Your task to perform on an android device: change the clock display to digital Image 0: 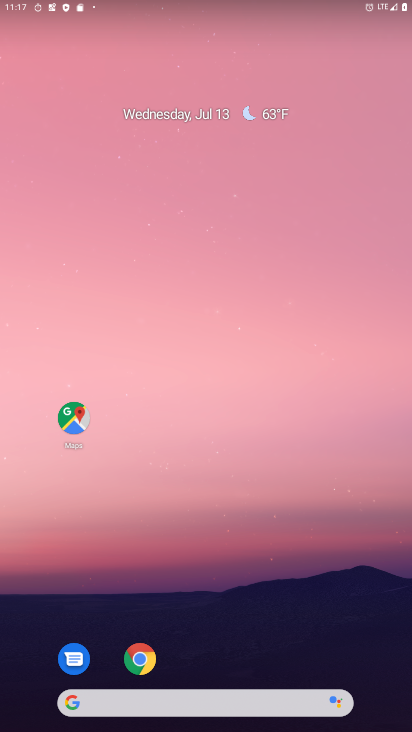
Step 0: drag from (238, 652) to (200, 175)
Your task to perform on an android device: change the clock display to digital Image 1: 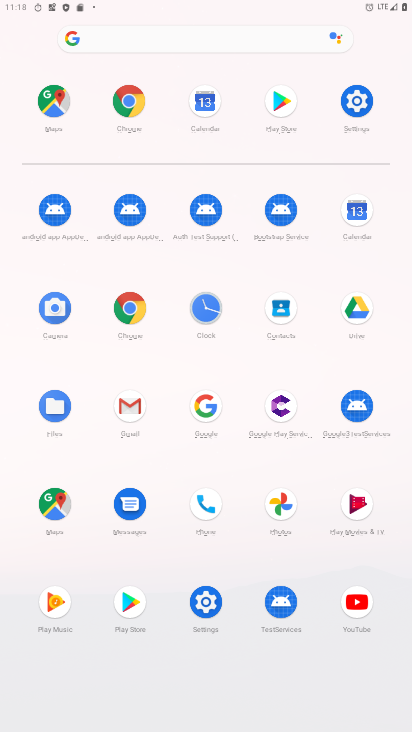
Step 1: click (211, 300)
Your task to perform on an android device: change the clock display to digital Image 2: 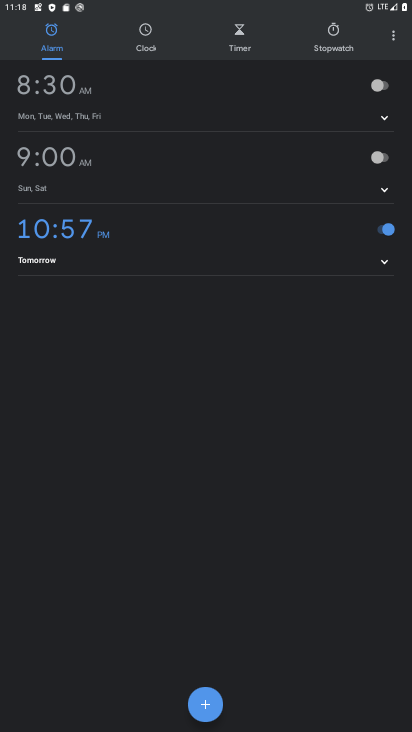
Step 2: click (396, 33)
Your task to perform on an android device: change the clock display to digital Image 3: 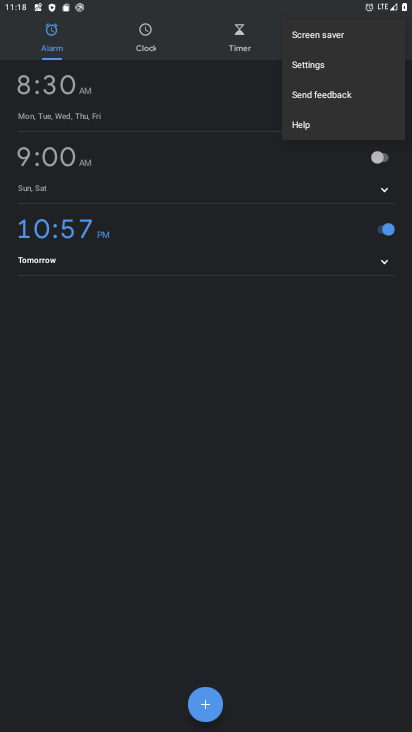
Step 3: click (331, 65)
Your task to perform on an android device: change the clock display to digital Image 4: 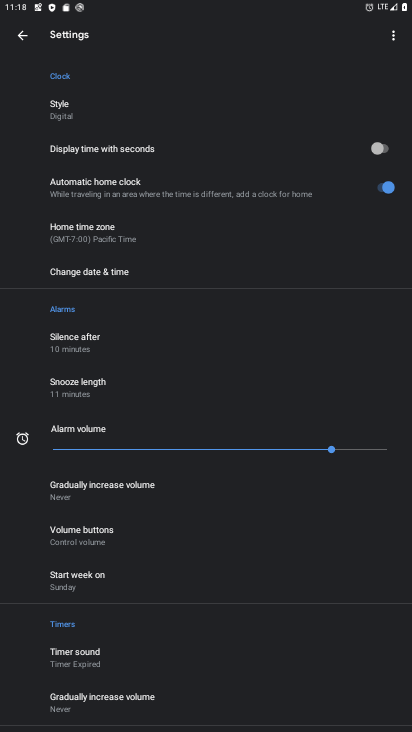
Step 4: task complete